Your task to perform on an android device: When is my next meeting? Image 0: 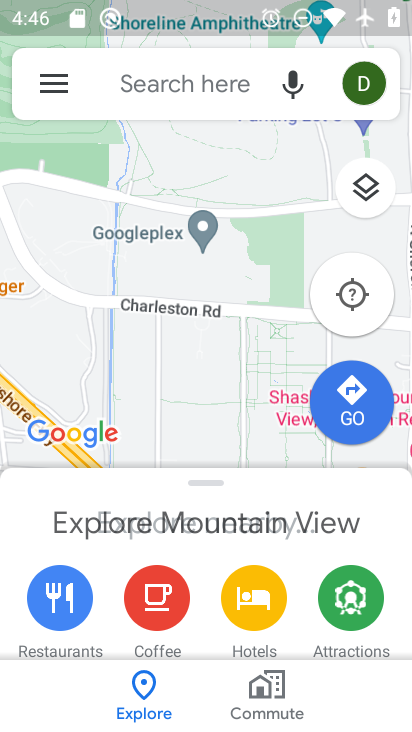
Step 0: press home button
Your task to perform on an android device: When is my next meeting? Image 1: 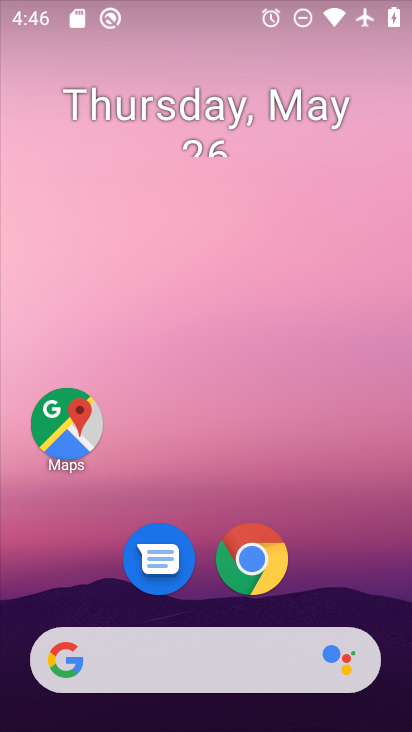
Step 1: drag from (343, 526) to (155, 8)
Your task to perform on an android device: When is my next meeting? Image 2: 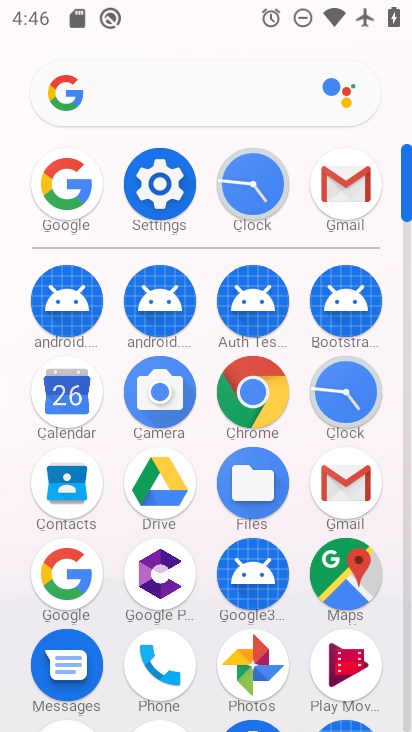
Step 2: click (71, 398)
Your task to perform on an android device: When is my next meeting? Image 3: 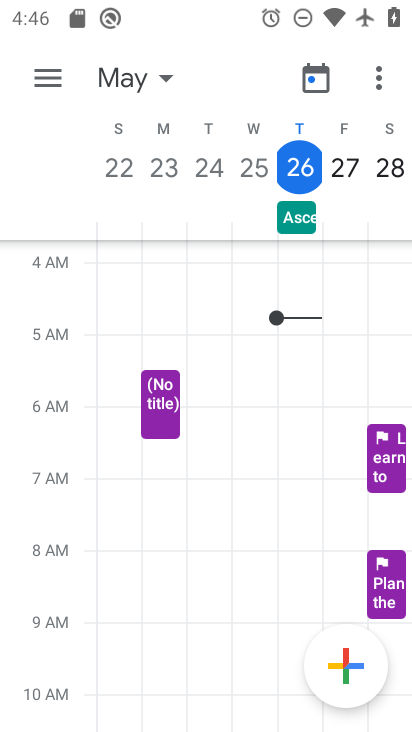
Step 3: task complete